Your task to perform on an android device: delete location history Image 0: 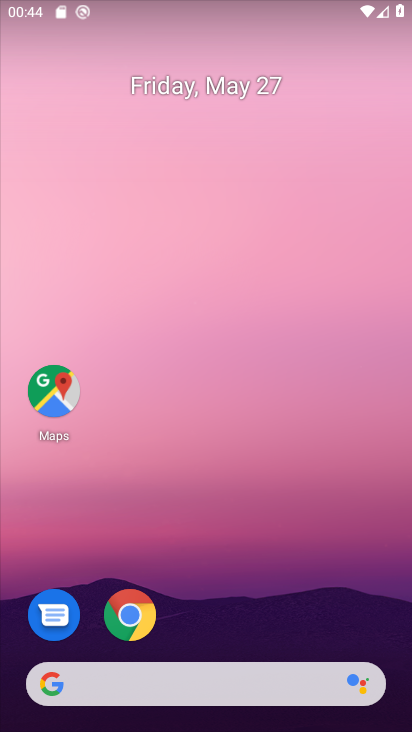
Step 0: drag from (353, 603) to (353, 192)
Your task to perform on an android device: delete location history Image 1: 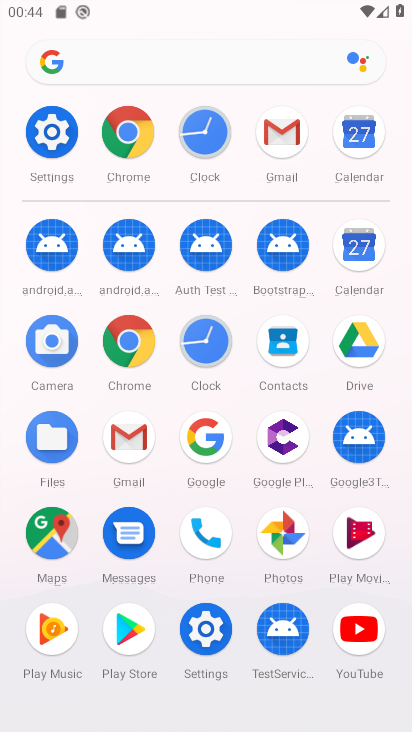
Step 1: click (63, 543)
Your task to perform on an android device: delete location history Image 2: 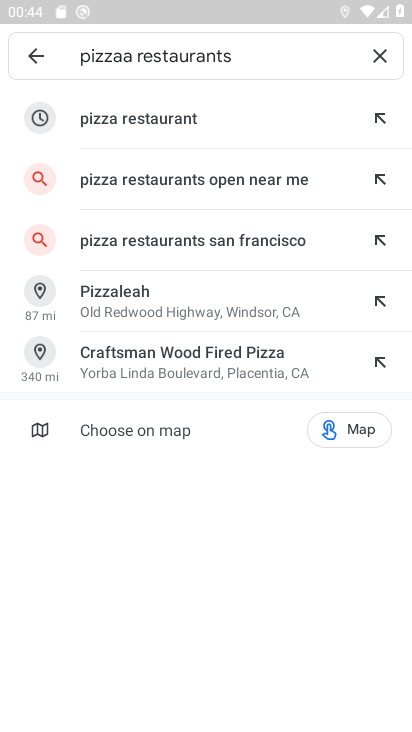
Step 2: press back button
Your task to perform on an android device: delete location history Image 3: 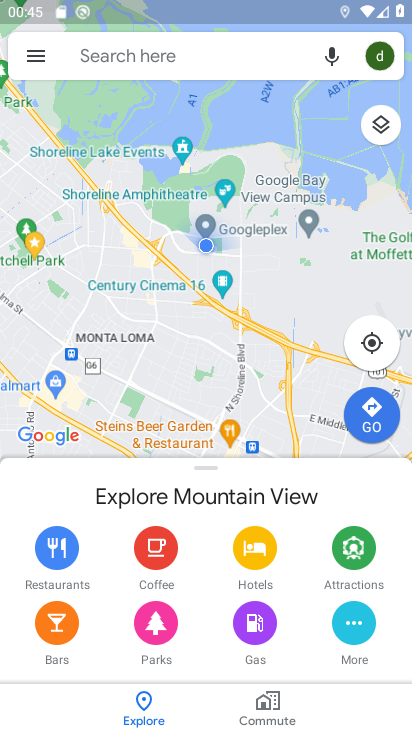
Step 3: click (28, 51)
Your task to perform on an android device: delete location history Image 4: 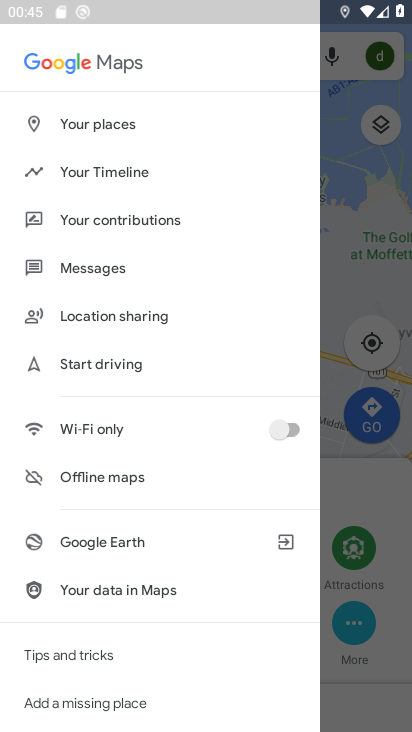
Step 4: click (145, 182)
Your task to perform on an android device: delete location history Image 5: 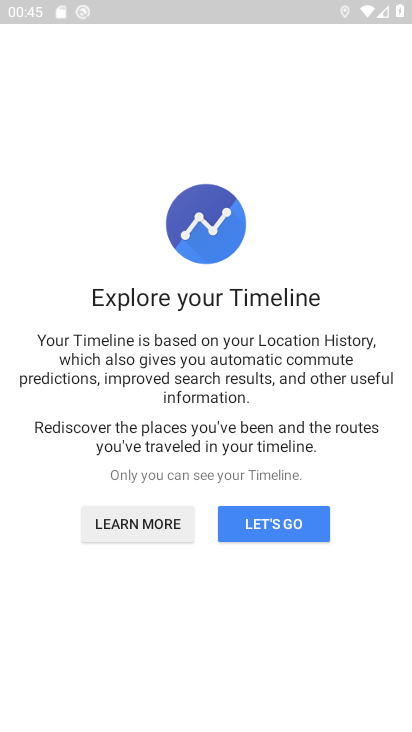
Step 5: click (248, 523)
Your task to perform on an android device: delete location history Image 6: 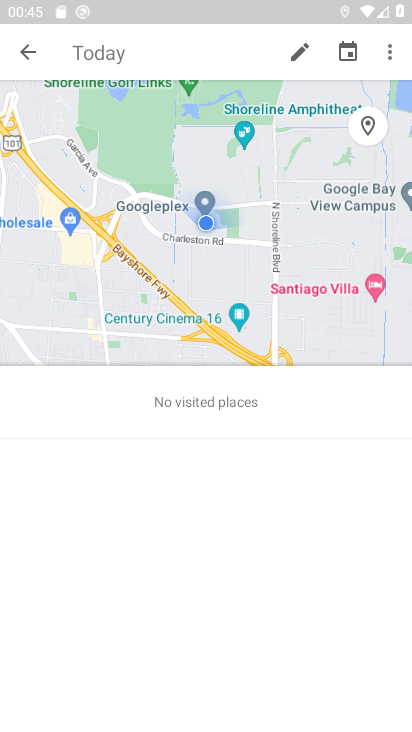
Step 6: click (391, 58)
Your task to perform on an android device: delete location history Image 7: 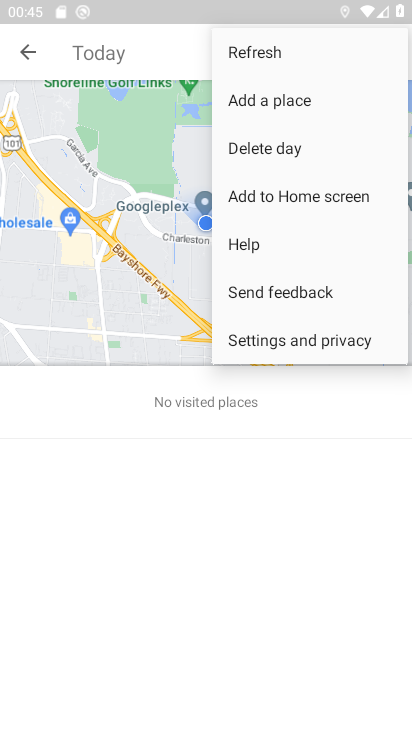
Step 7: click (342, 344)
Your task to perform on an android device: delete location history Image 8: 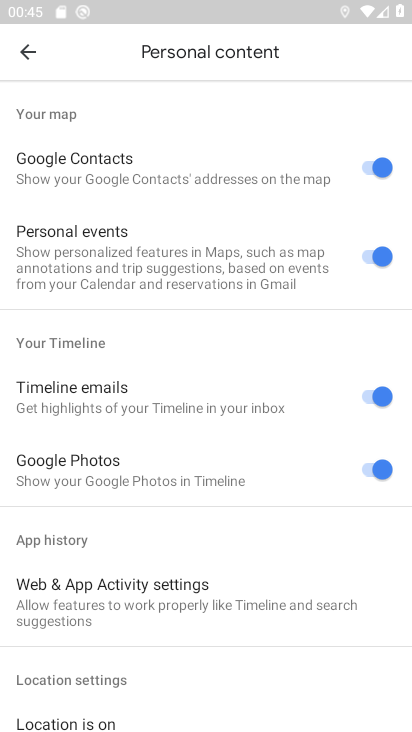
Step 8: drag from (284, 389) to (283, 304)
Your task to perform on an android device: delete location history Image 9: 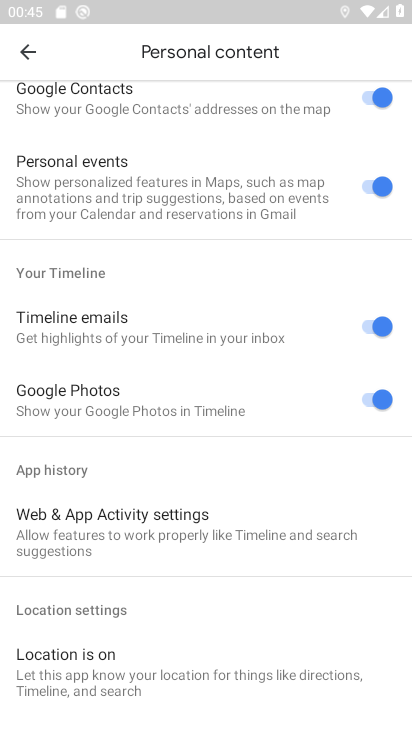
Step 9: drag from (286, 409) to (286, 326)
Your task to perform on an android device: delete location history Image 10: 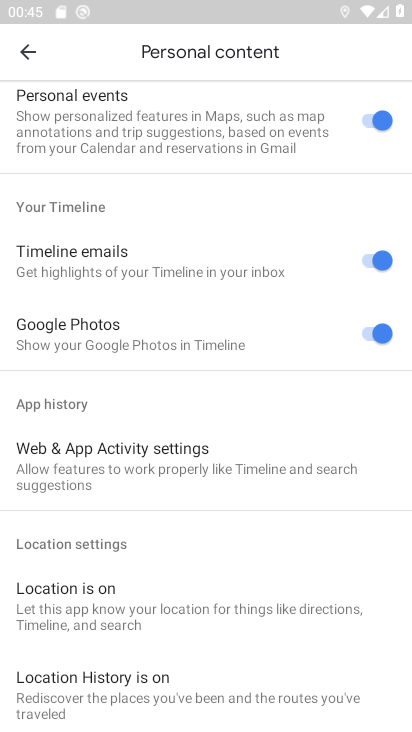
Step 10: drag from (285, 426) to (285, 351)
Your task to perform on an android device: delete location history Image 11: 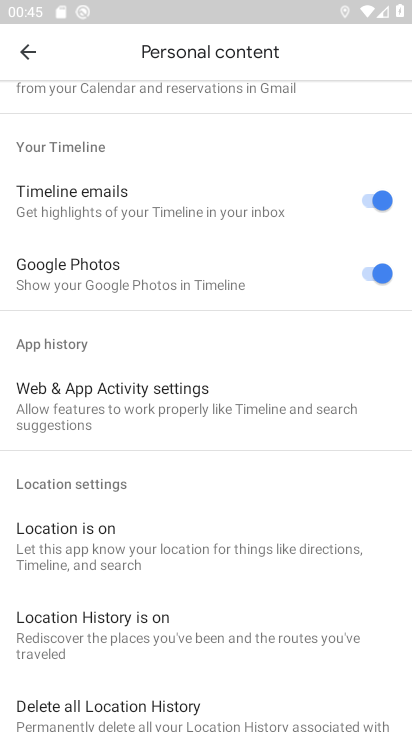
Step 11: drag from (269, 435) to (269, 353)
Your task to perform on an android device: delete location history Image 12: 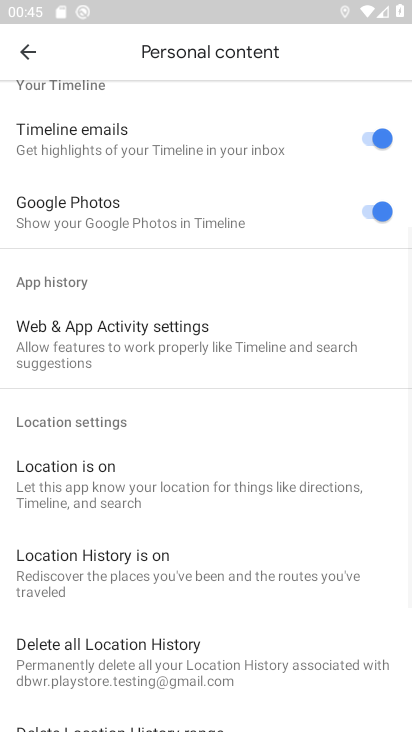
Step 12: drag from (265, 454) to (265, 366)
Your task to perform on an android device: delete location history Image 13: 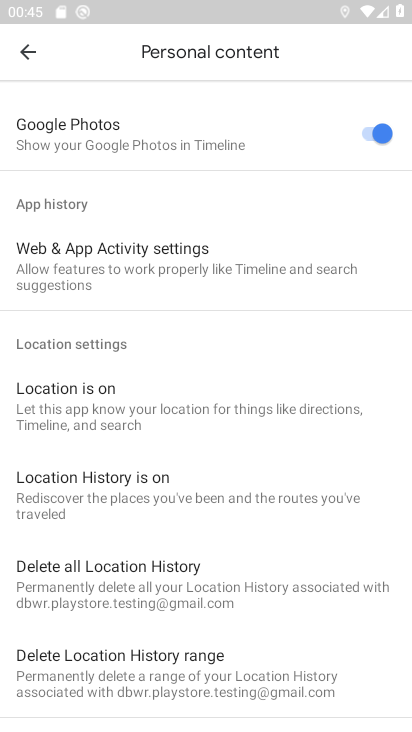
Step 13: drag from (265, 445) to (267, 377)
Your task to perform on an android device: delete location history Image 14: 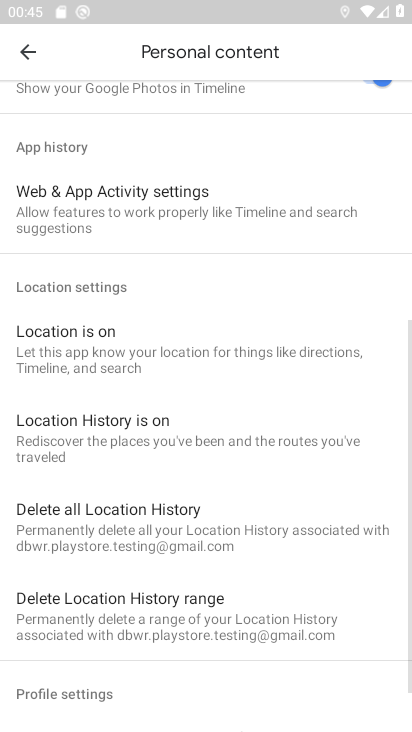
Step 14: drag from (264, 458) to (267, 389)
Your task to perform on an android device: delete location history Image 15: 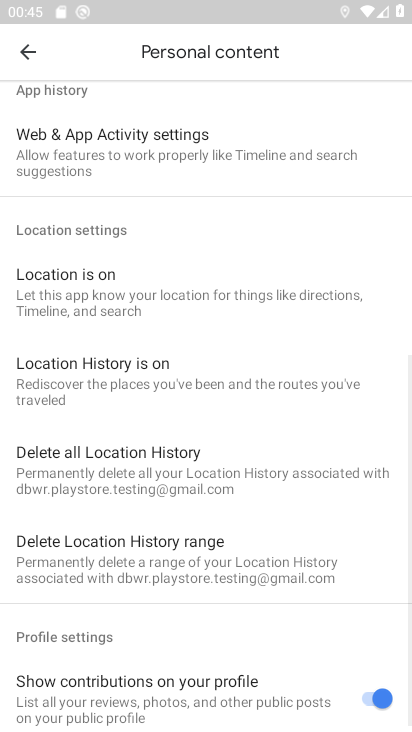
Step 15: drag from (269, 478) to (271, 396)
Your task to perform on an android device: delete location history Image 16: 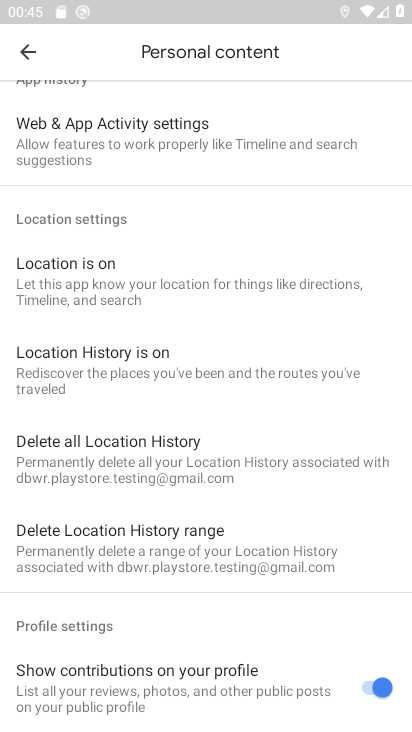
Step 16: click (236, 455)
Your task to perform on an android device: delete location history Image 17: 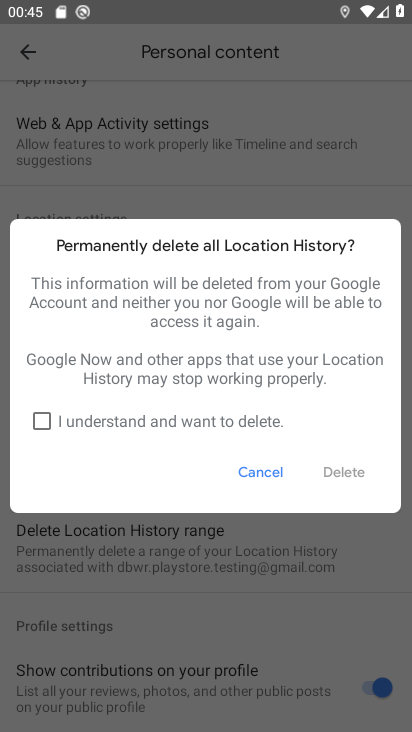
Step 17: click (102, 432)
Your task to perform on an android device: delete location history Image 18: 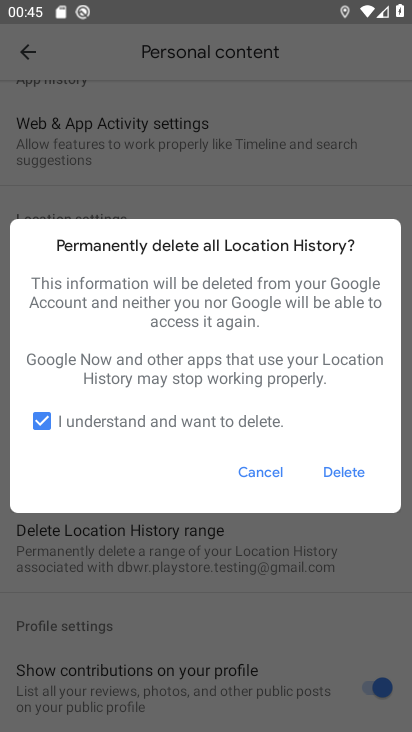
Step 18: click (354, 476)
Your task to perform on an android device: delete location history Image 19: 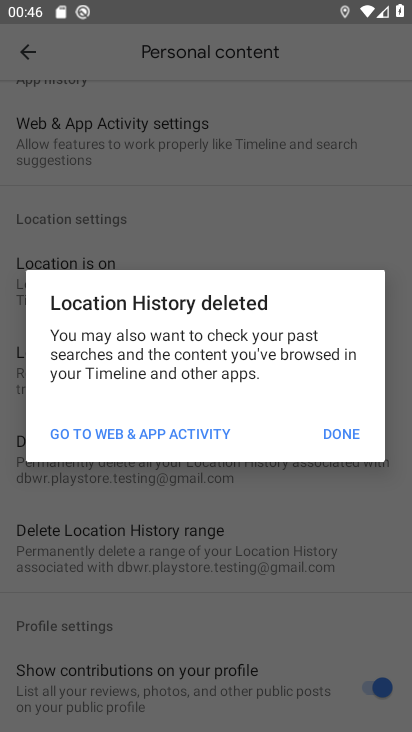
Step 19: task complete